Your task to perform on an android device: move an email to a new category in the gmail app Image 0: 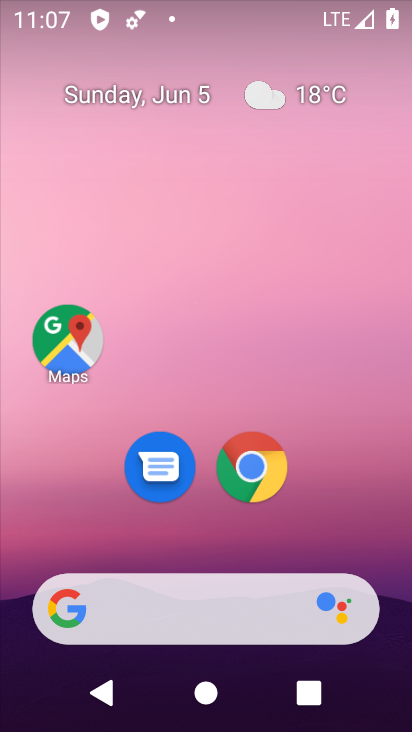
Step 0: drag from (220, 558) to (195, 138)
Your task to perform on an android device: move an email to a new category in the gmail app Image 1: 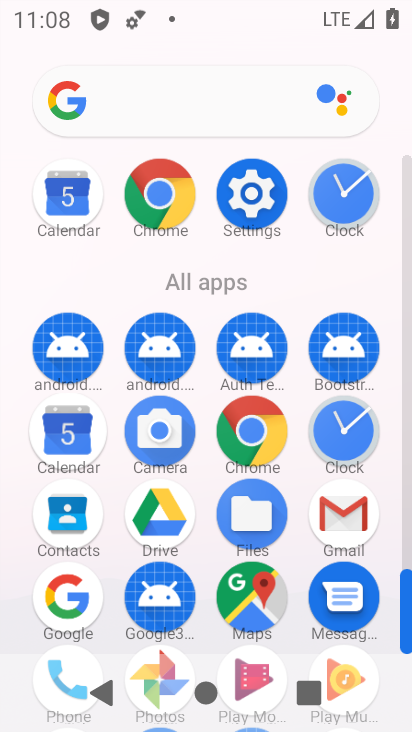
Step 1: click (346, 526)
Your task to perform on an android device: move an email to a new category in the gmail app Image 2: 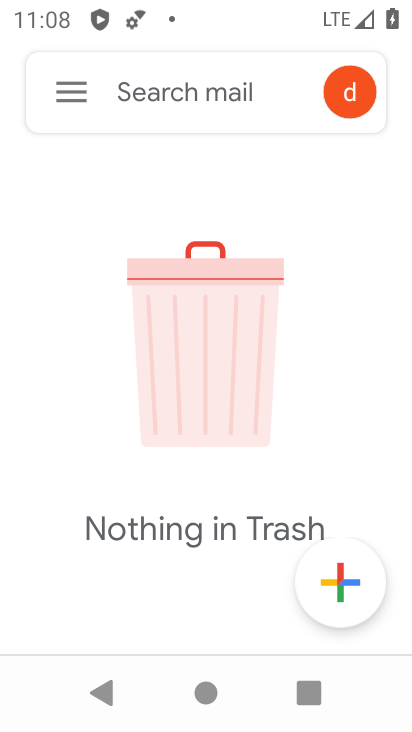
Step 2: task complete